Your task to perform on an android device: Open Reddit.com Image 0: 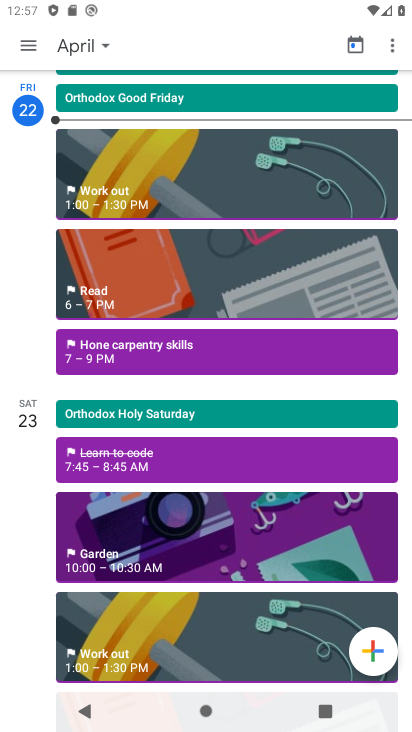
Step 0: press home button
Your task to perform on an android device: Open Reddit.com Image 1: 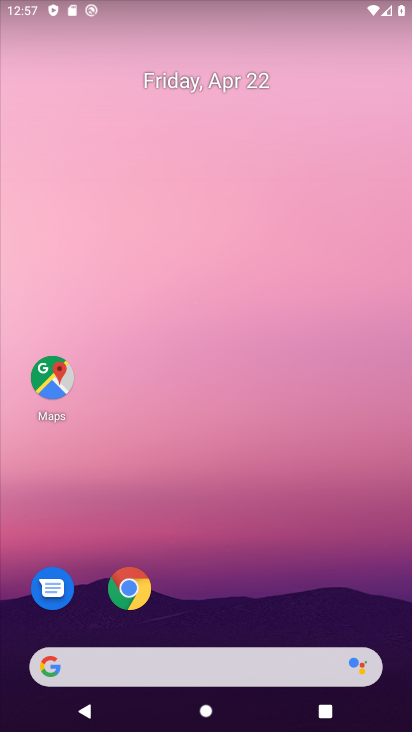
Step 1: drag from (360, 525) to (386, 210)
Your task to perform on an android device: Open Reddit.com Image 2: 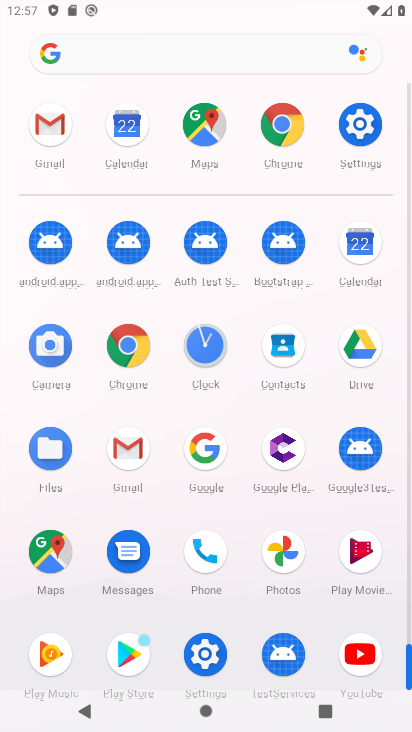
Step 2: click (282, 130)
Your task to perform on an android device: Open Reddit.com Image 3: 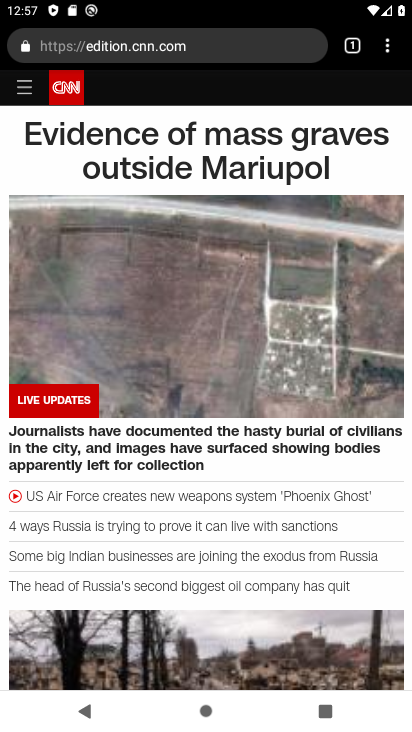
Step 3: click (360, 49)
Your task to perform on an android device: Open Reddit.com Image 4: 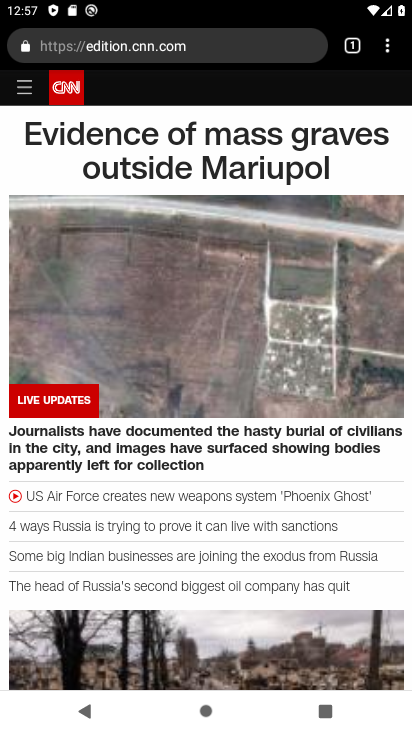
Step 4: click (358, 50)
Your task to perform on an android device: Open Reddit.com Image 5: 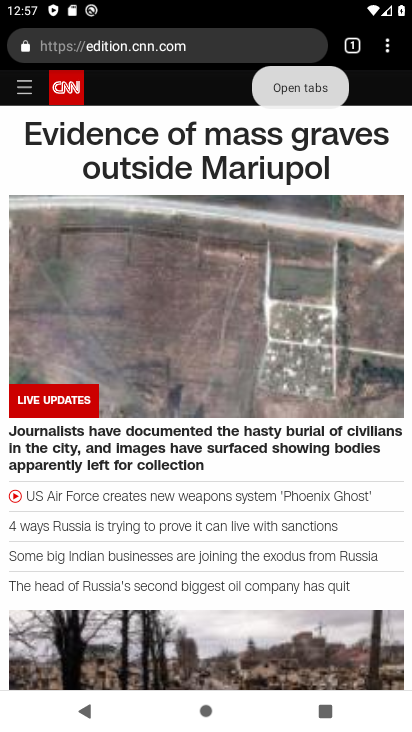
Step 5: click (199, 59)
Your task to perform on an android device: Open Reddit.com Image 6: 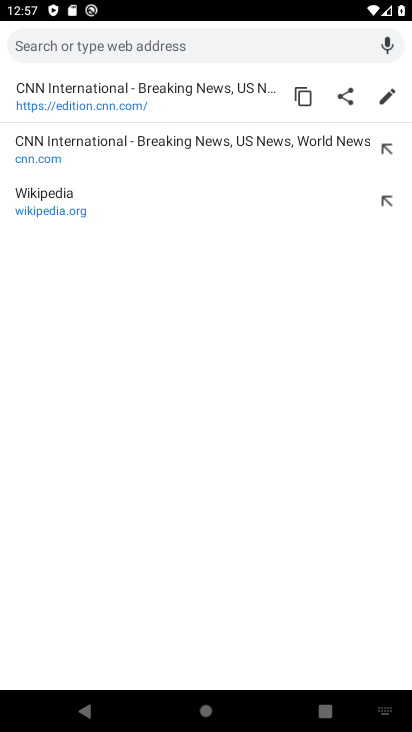
Step 6: type "reddit.com"
Your task to perform on an android device: Open Reddit.com Image 7: 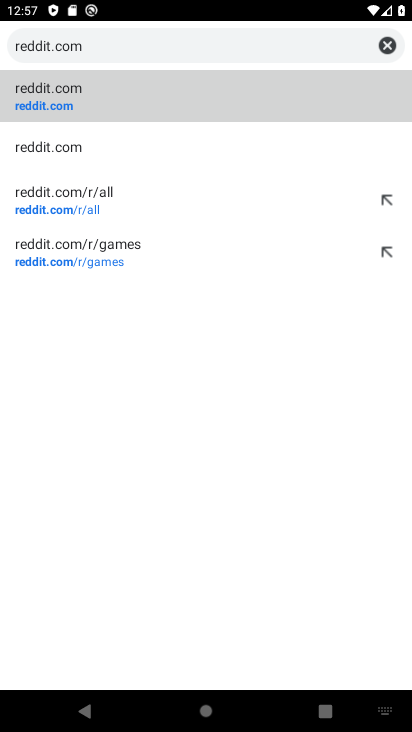
Step 7: click (42, 111)
Your task to perform on an android device: Open Reddit.com Image 8: 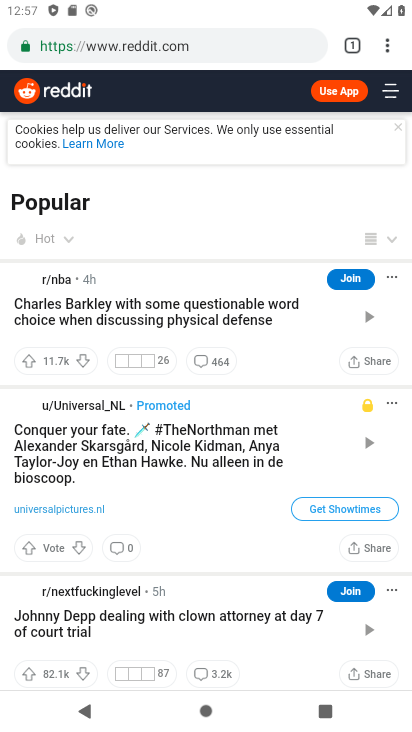
Step 8: task complete